Your task to perform on an android device: change the clock style Image 0: 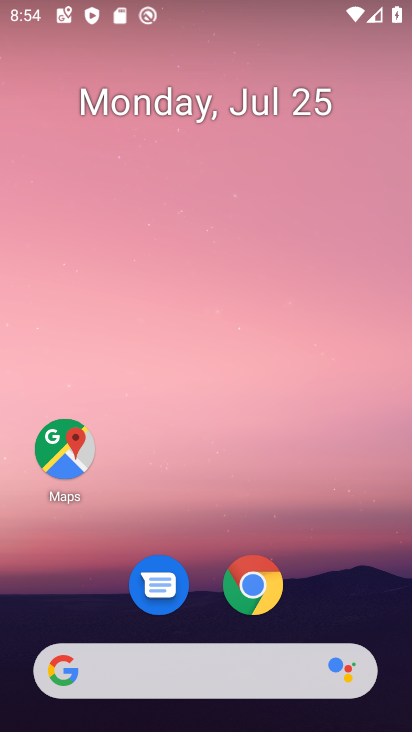
Step 0: drag from (239, 632) to (320, 144)
Your task to perform on an android device: change the clock style Image 1: 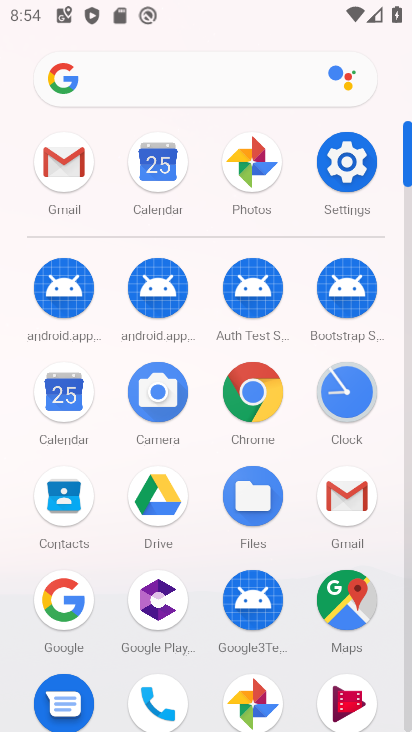
Step 1: click (351, 393)
Your task to perform on an android device: change the clock style Image 2: 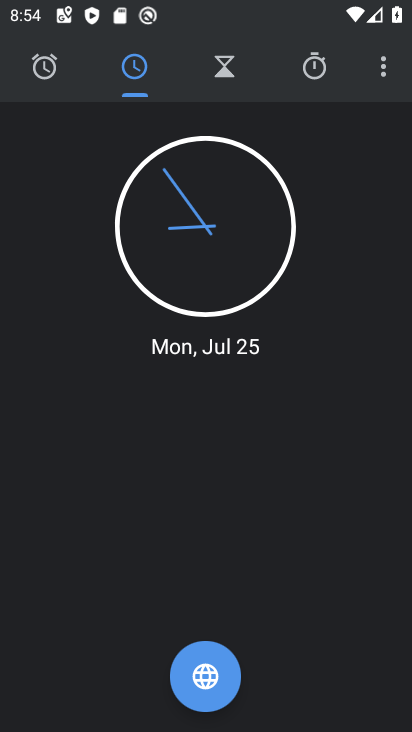
Step 2: click (386, 65)
Your task to perform on an android device: change the clock style Image 3: 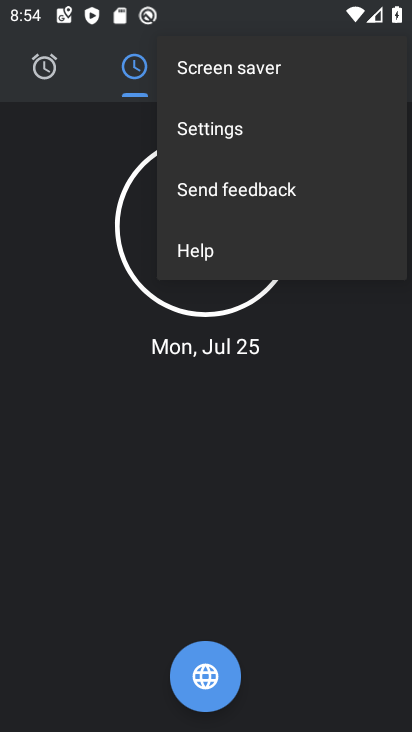
Step 3: click (243, 136)
Your task to perform on an android device: change the clock style Image 4: 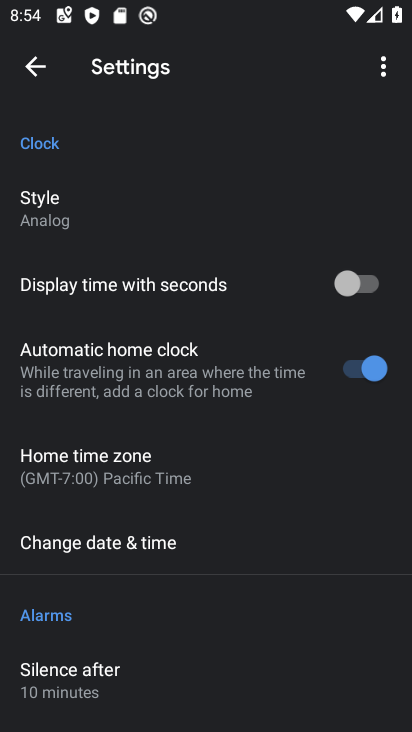
Step 4: click (54, 215)
Your task to perform on an android device: change the clock style Image 5: 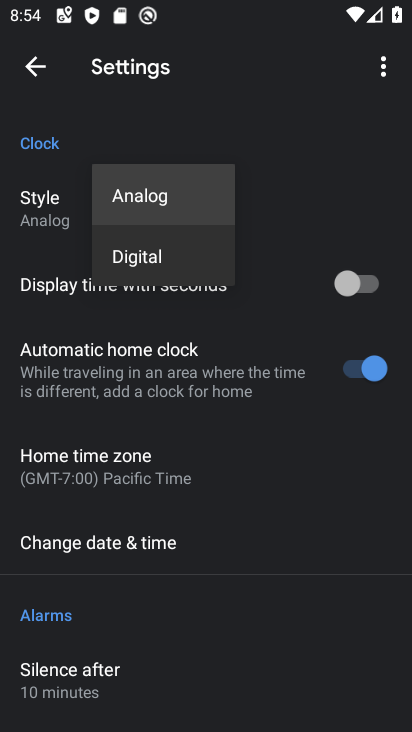
Step 5: click (150, 258)
Your task to perform on an android device: change the clock style Image 6: 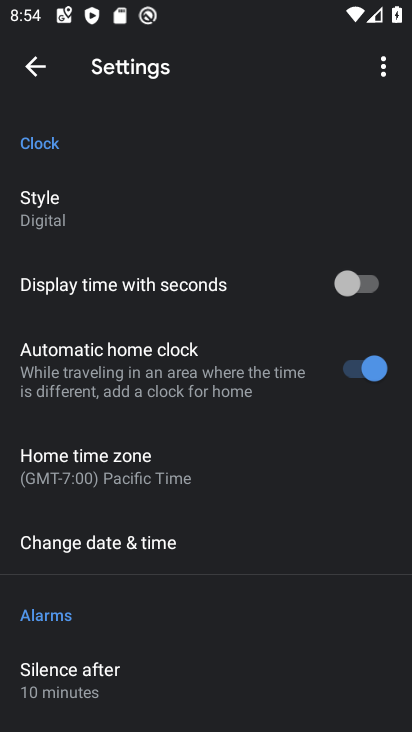
Step 6: task complete